Your task to perform on an android device: Open the map Image 0: 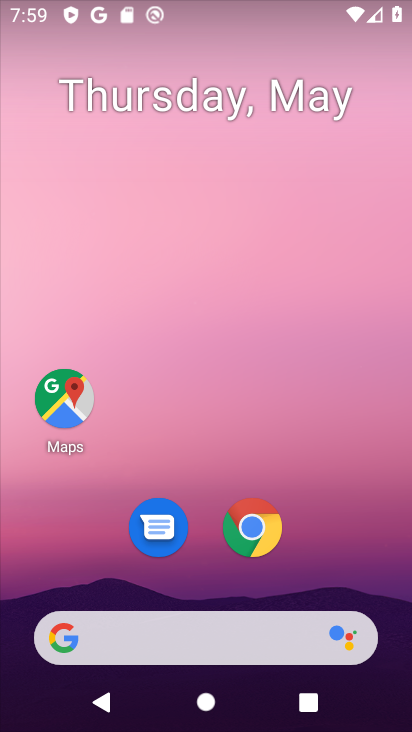
Step 0: press home button
Your task to perform on an android device: Open the map Image 1: 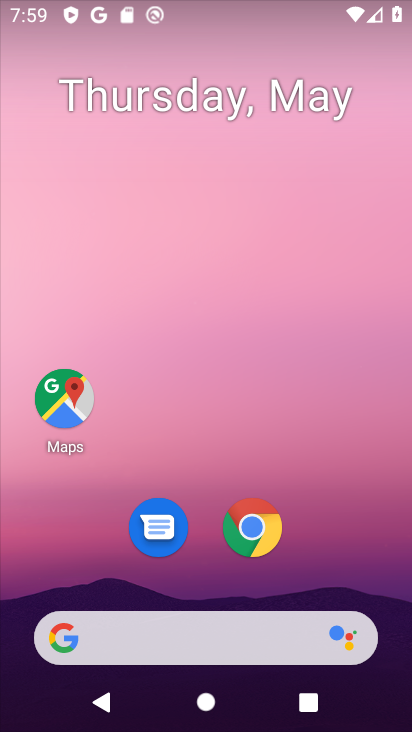
Step 1: click (73, 398)
Your task to perform on an android device: Open the map Image 2: 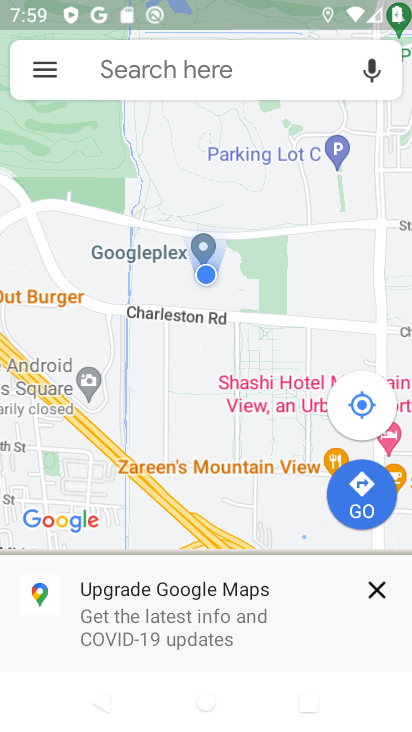
Step 2: click (367, 588)
Your task to perform on an android device: Open the map Image 3: 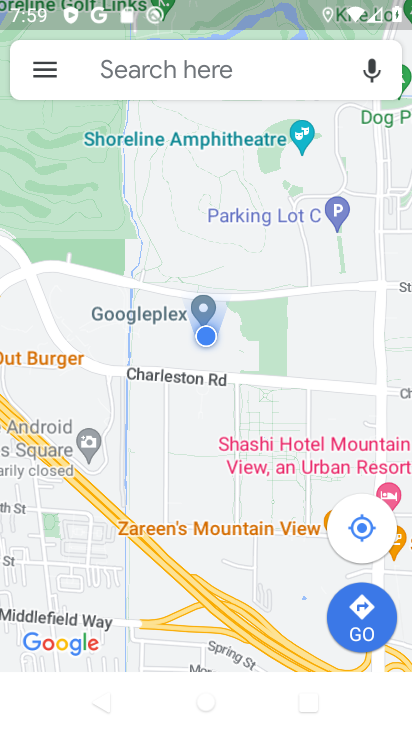
Step 3: task complete